Your task to perform on an android device: Show me the alarms in the clock app Image 0: 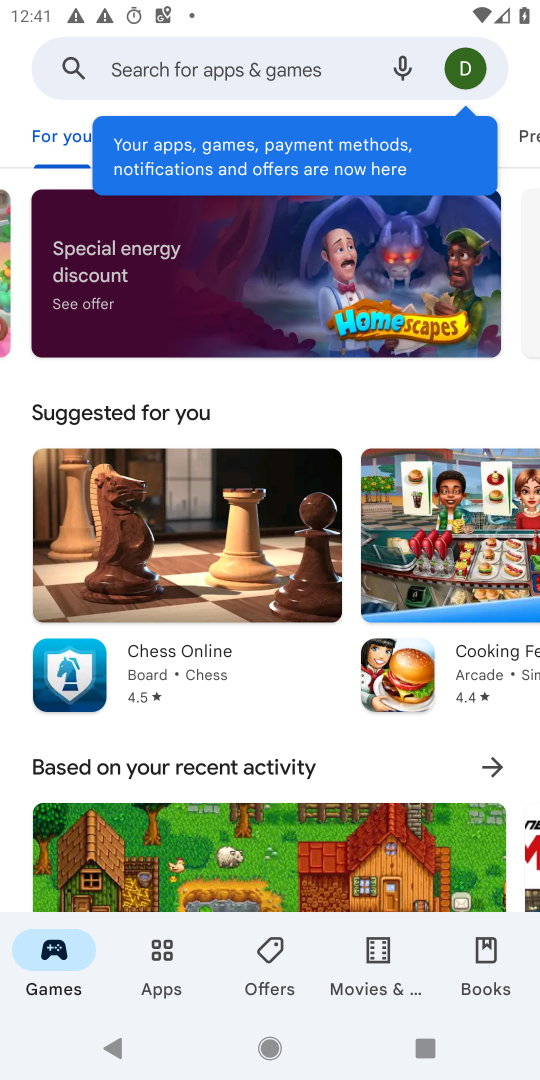
Step 0: press home button
Your task to perform on an android device: Show me the alarms in the clock app Image 1: 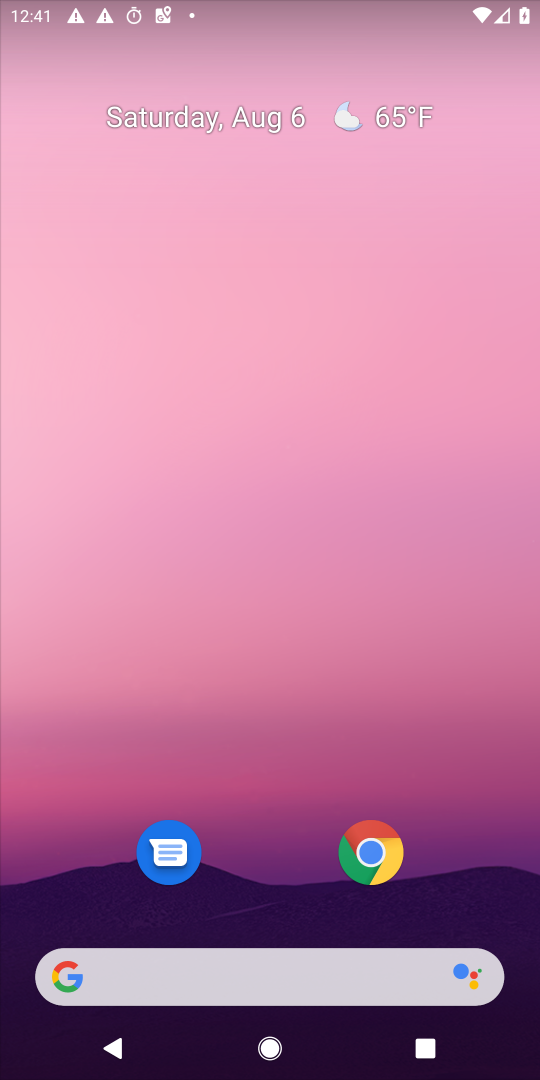
Step 1: drag from (373, 1004) to (414, 374)
Your task to perform on an android device: Show me the alarms in the clock app Image 2: 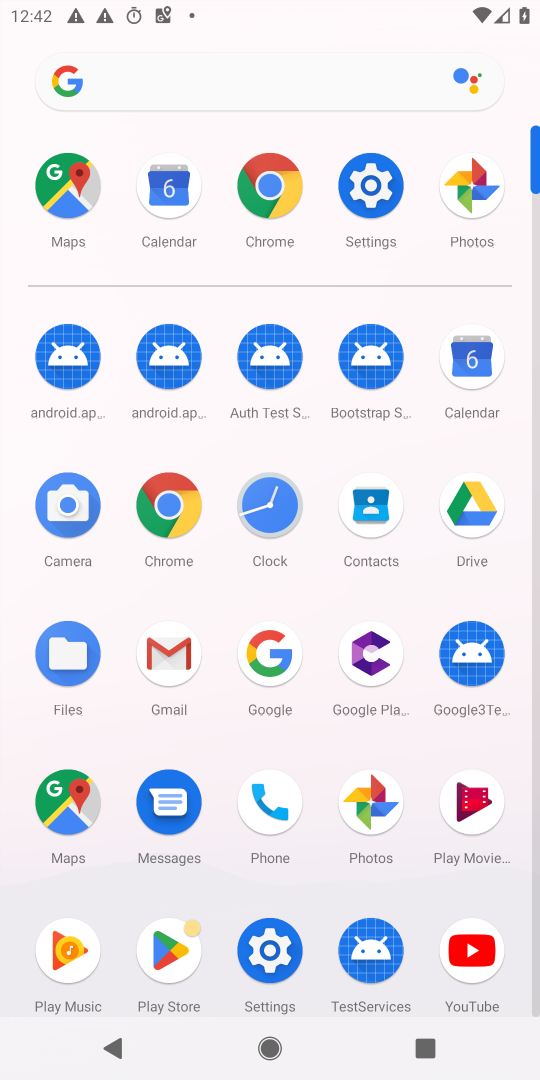
Step 2: click (269, 532)
Your task to perform on an android device: Show me the alarms in the clock app Image 3: 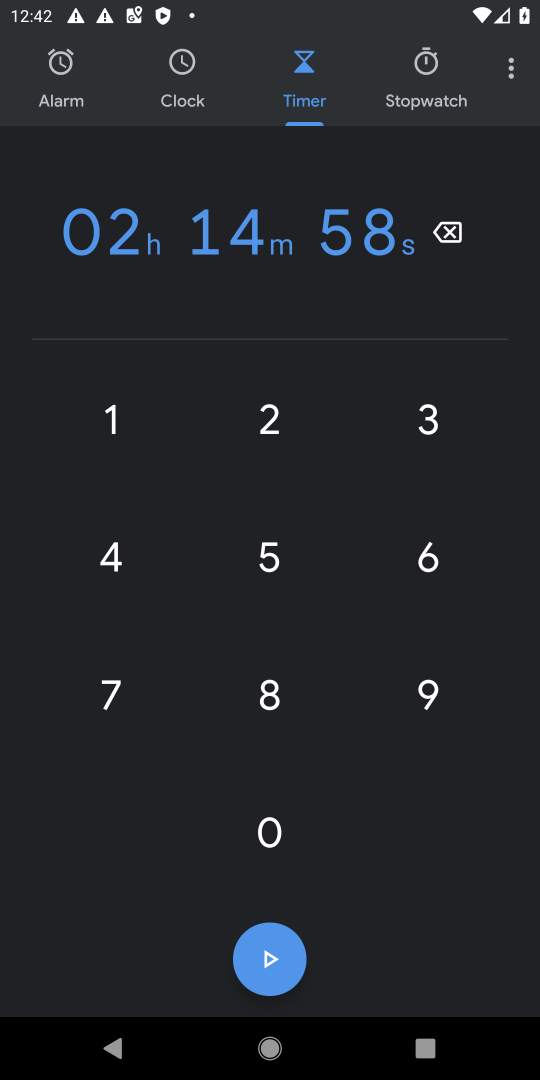
Step 3: click (501, 82)
Your task to perform on an android device: Show me the alarms in the clock app Image 4: 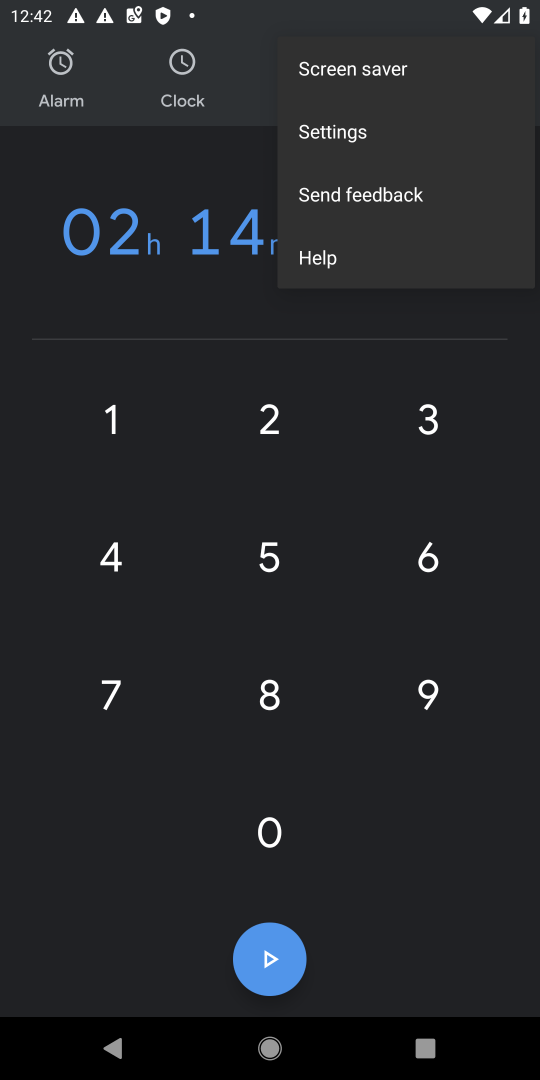
Step 4: click (73, 64)
Your task to perform on an android device: Show me the alarms in the clock app Image 5: 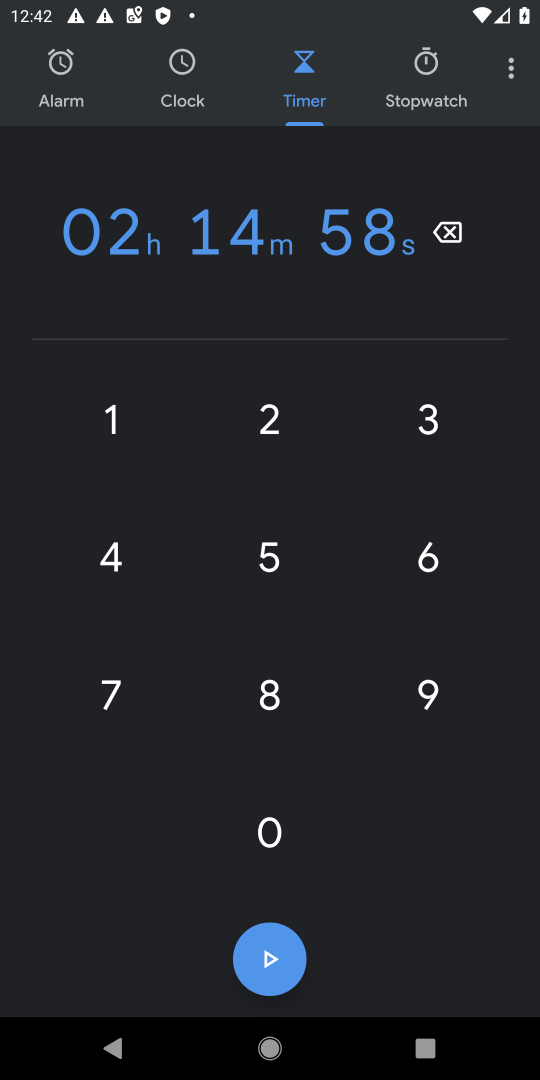
Step 5: click (73, 64)
Your task to perform on an android device: Show me the alarms in the clock app Image 6: 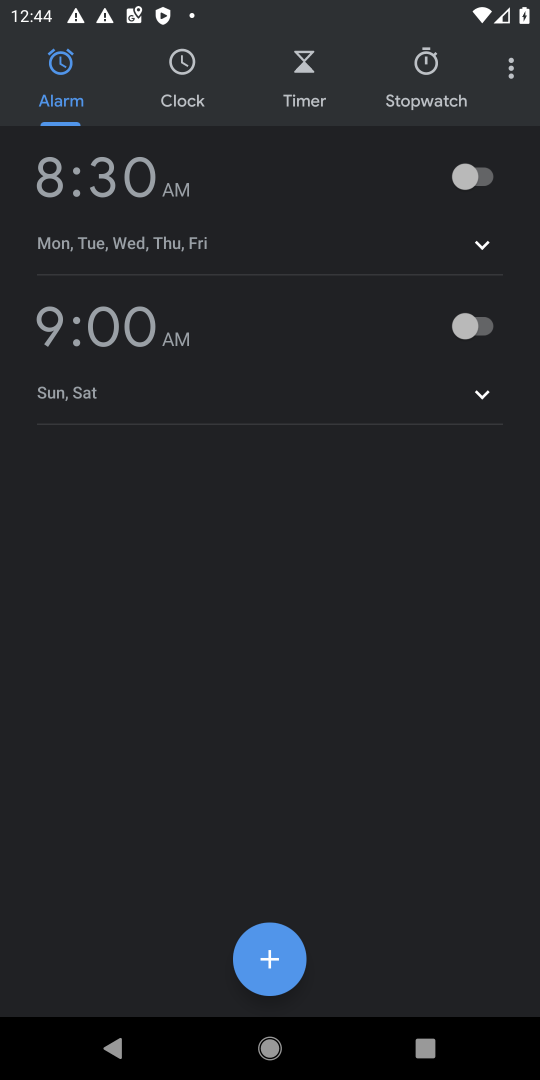
Step 6: task complete